Your task to perform on an android device: toggle priority inbox in the gmail app Image 0: 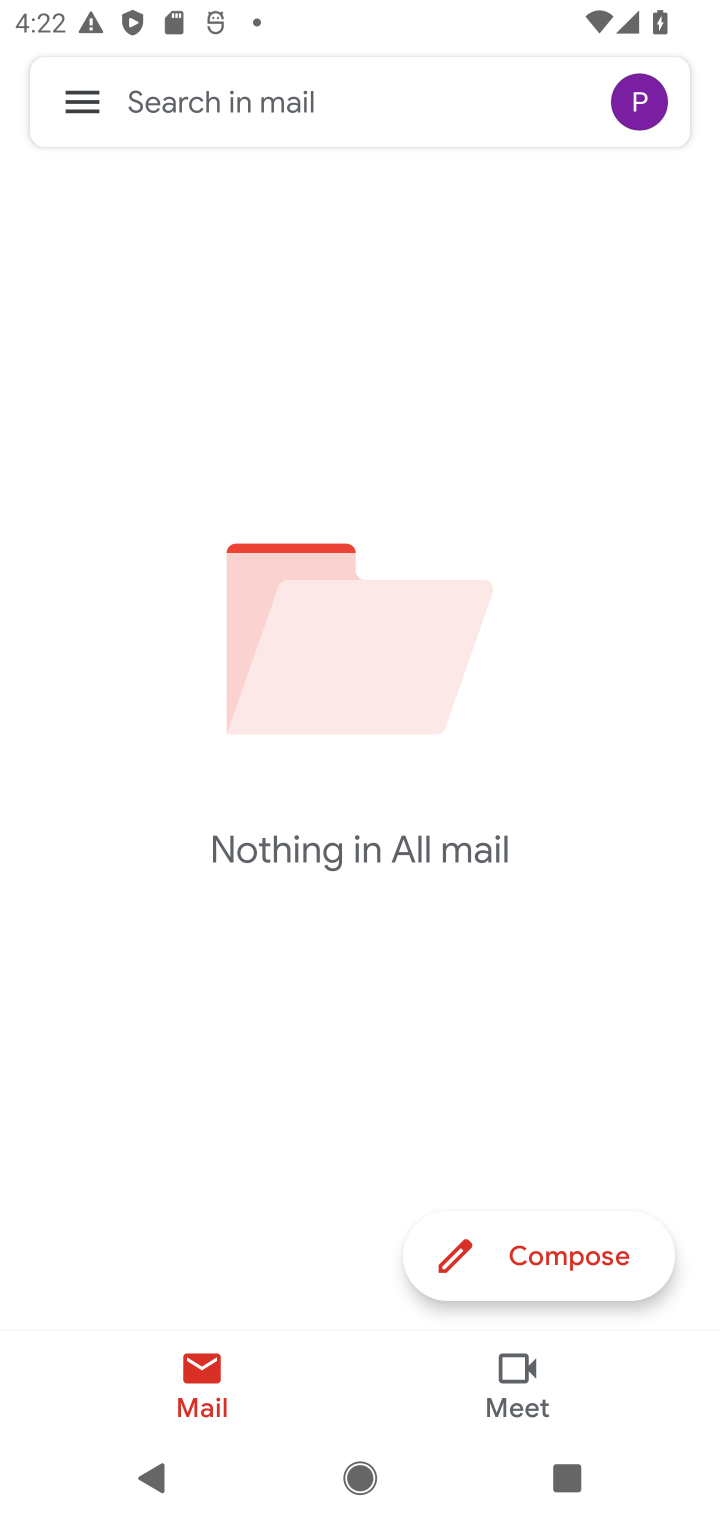
Step 0: press home button
Your task to perform on an android device: toggle priority inbox in the gmail app Image 1: 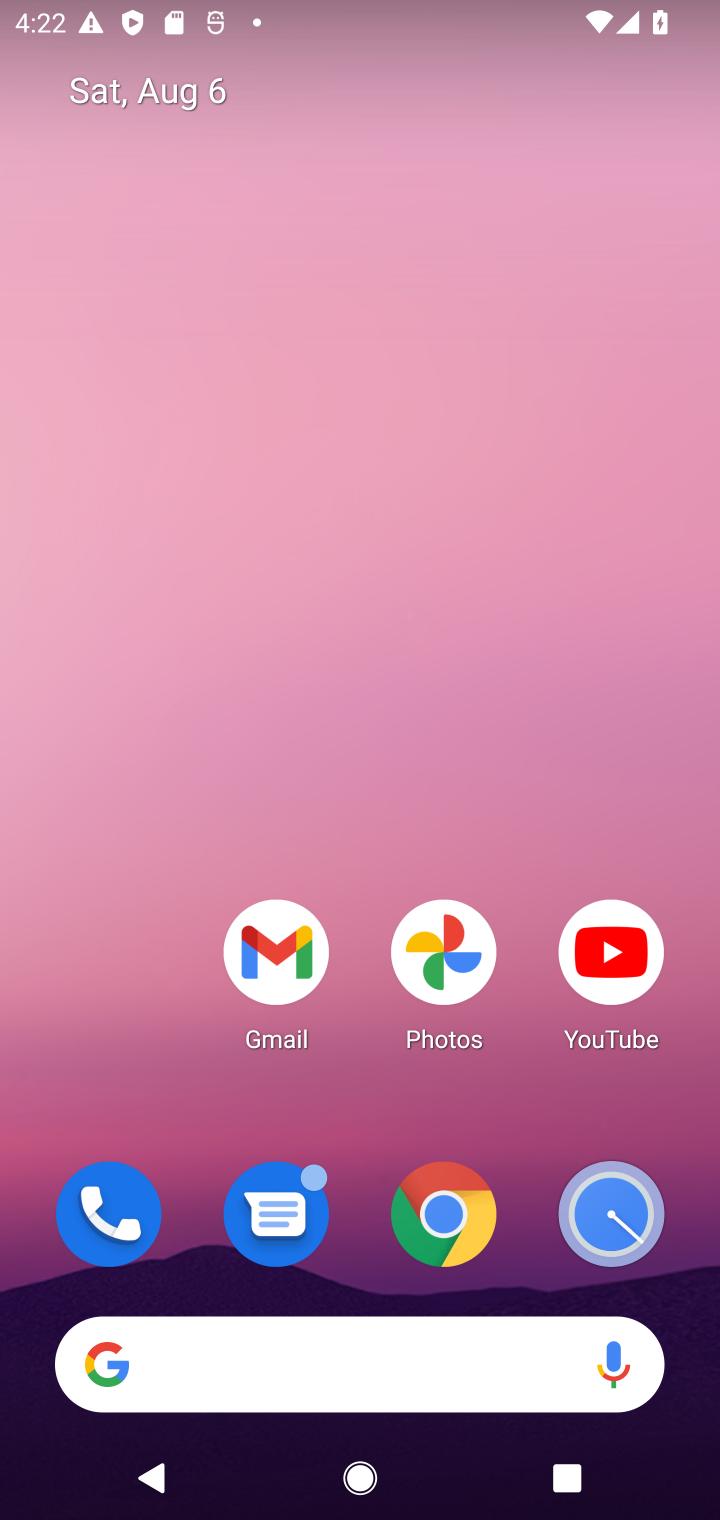
Step 1: drag from (351, 879) to (363, 489)
Your task to perform on an android device: toggle priority inbox in the gmail app Image 2: 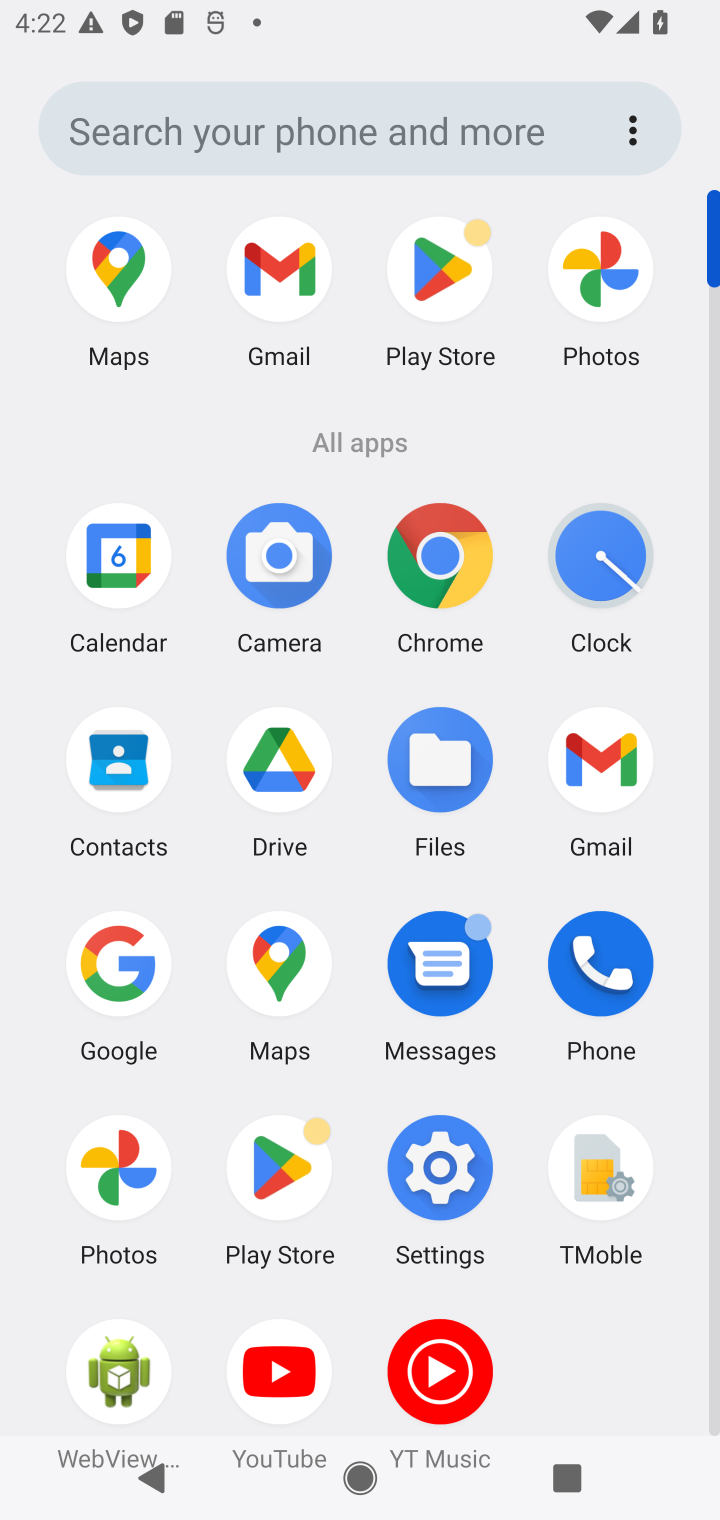
Step 2: click (270, 294)
Your task to perform on an android device: toggle priority inbox in the gmail app Image 3: 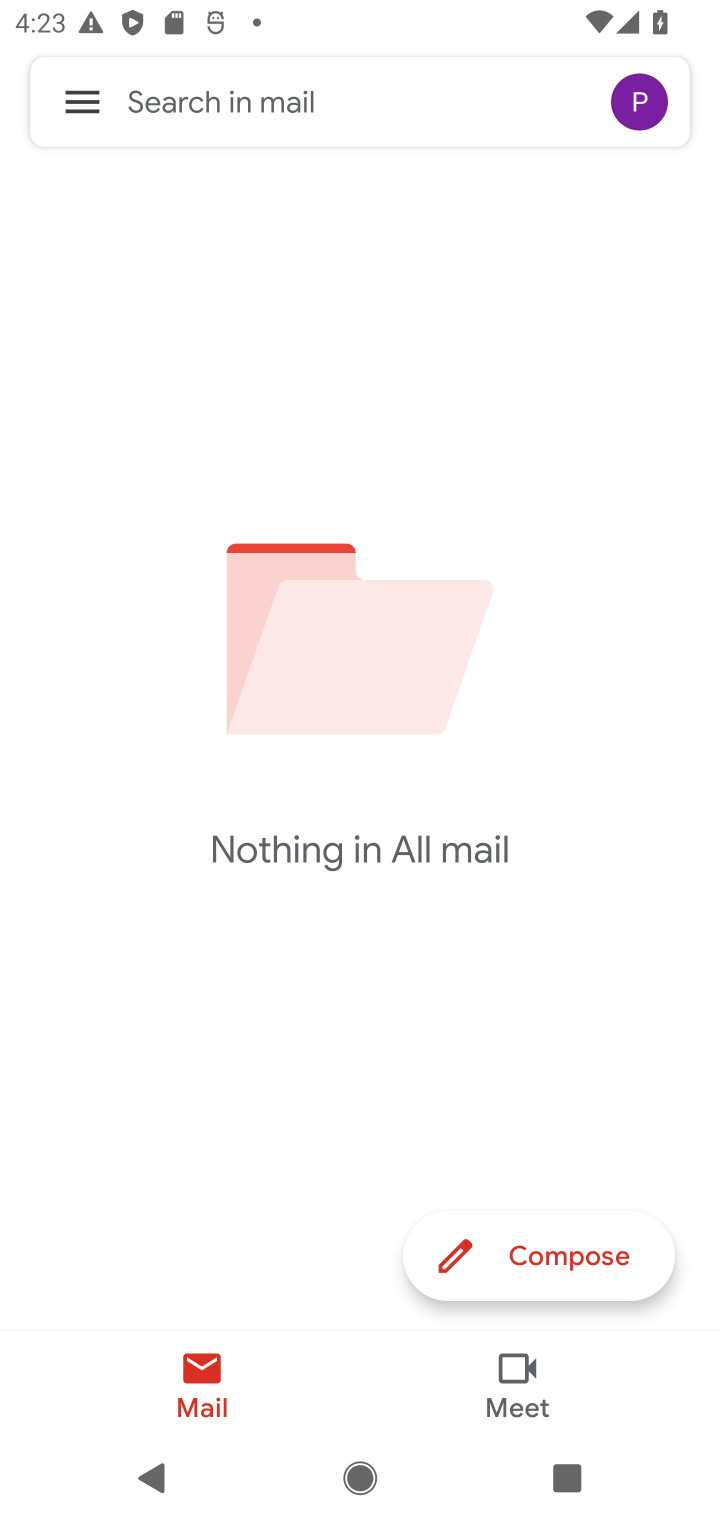
Step 3: click (84, 114)
Your task to perform on an android device: toggle priority inbox in the gmail app Image 4: 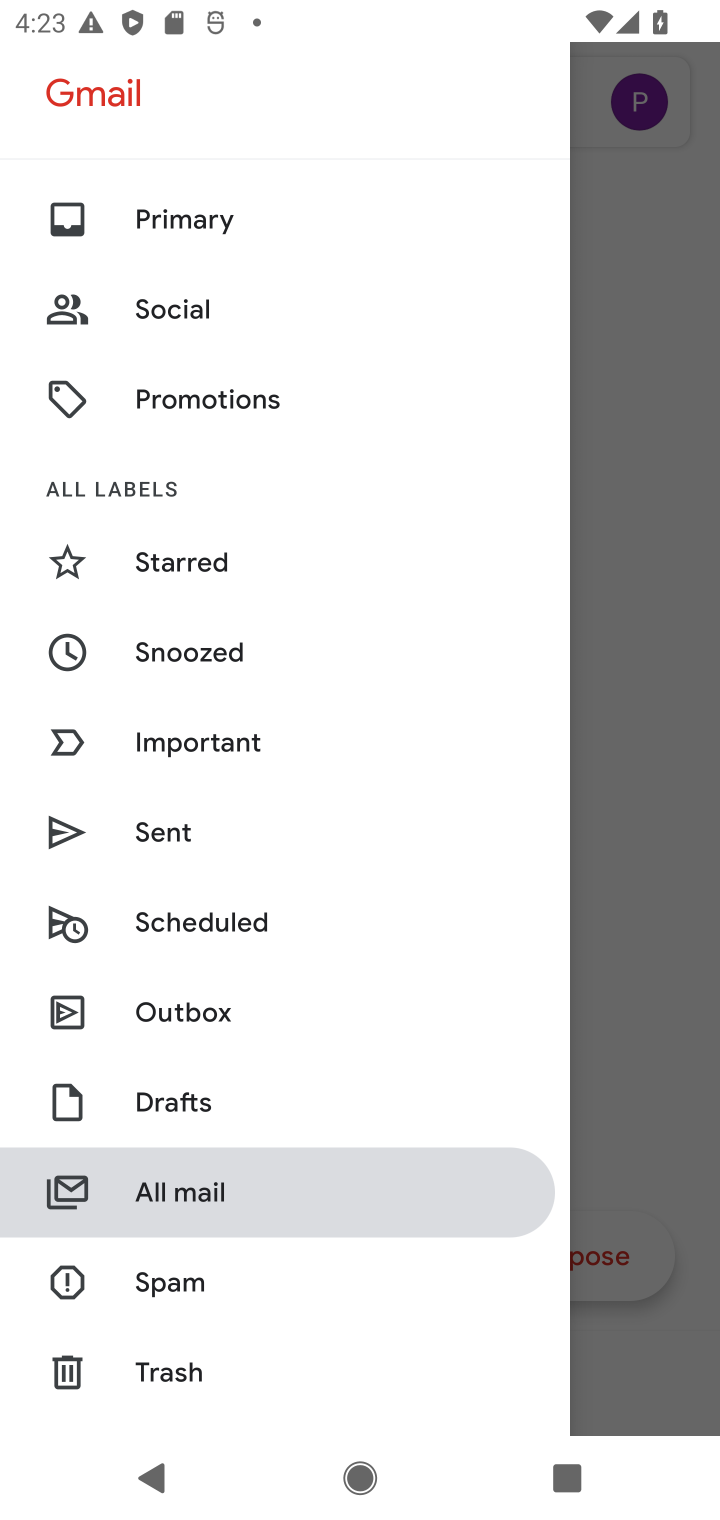
Step 4: drag from (268, 994) to (268, 682)
Your task to perform on an android device: toggle priority inbox in the gmail app Image 5: 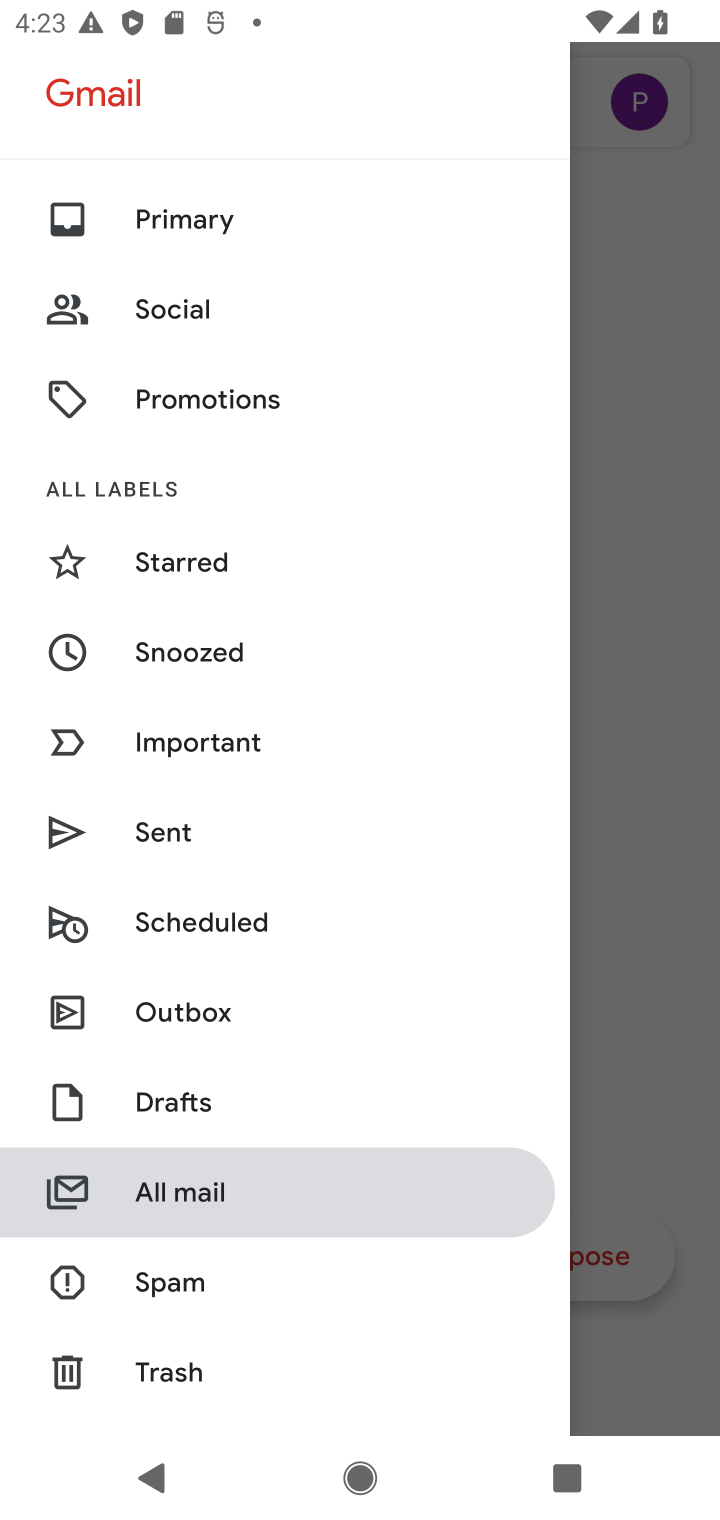
Step 5: drag from (230, 1349) to (215, 631)
Your task to perform on an android device: toggle priority inbox in the gmail app Image 6: 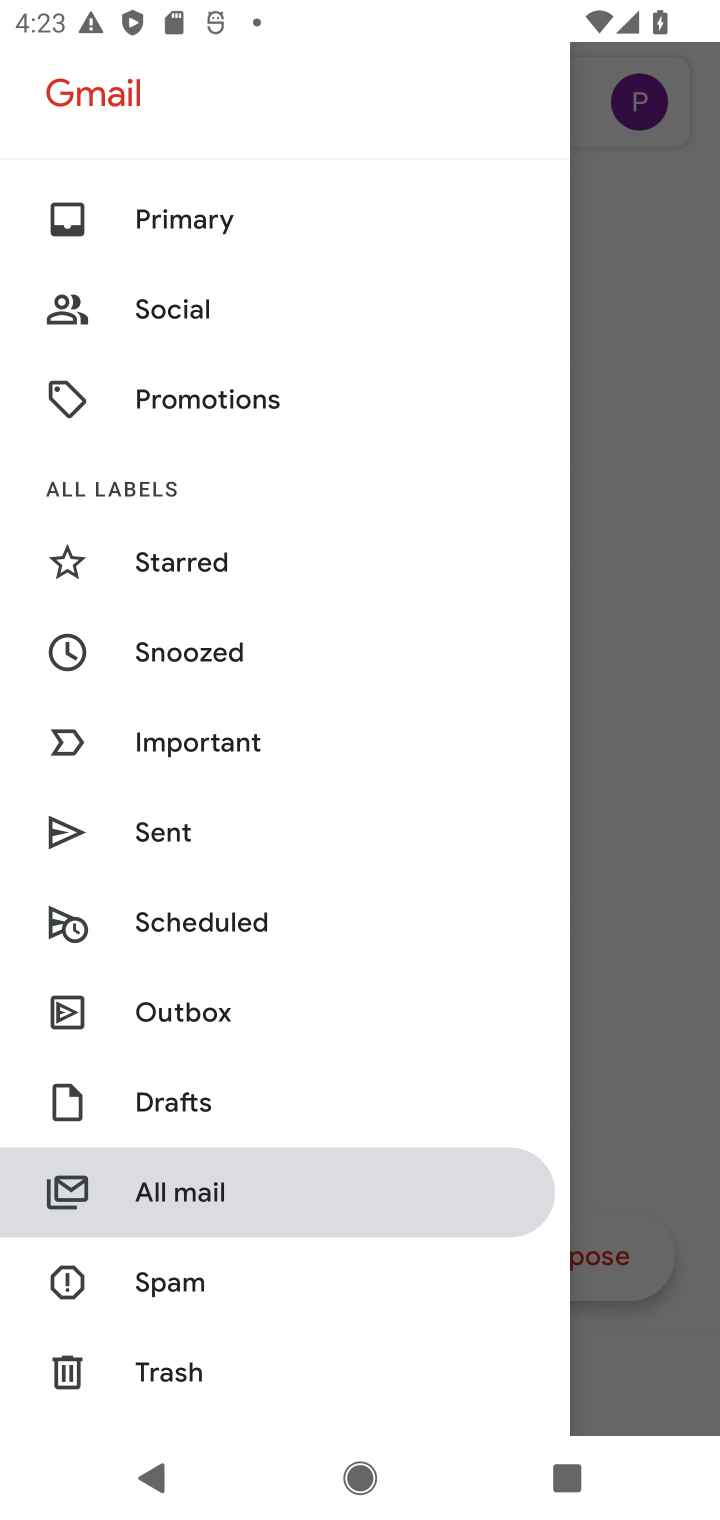
Step 6: drag from (200, 988) to (207, 564)
Your task to perform on an android device: toggle priority inbox in the gmail app Image 7: 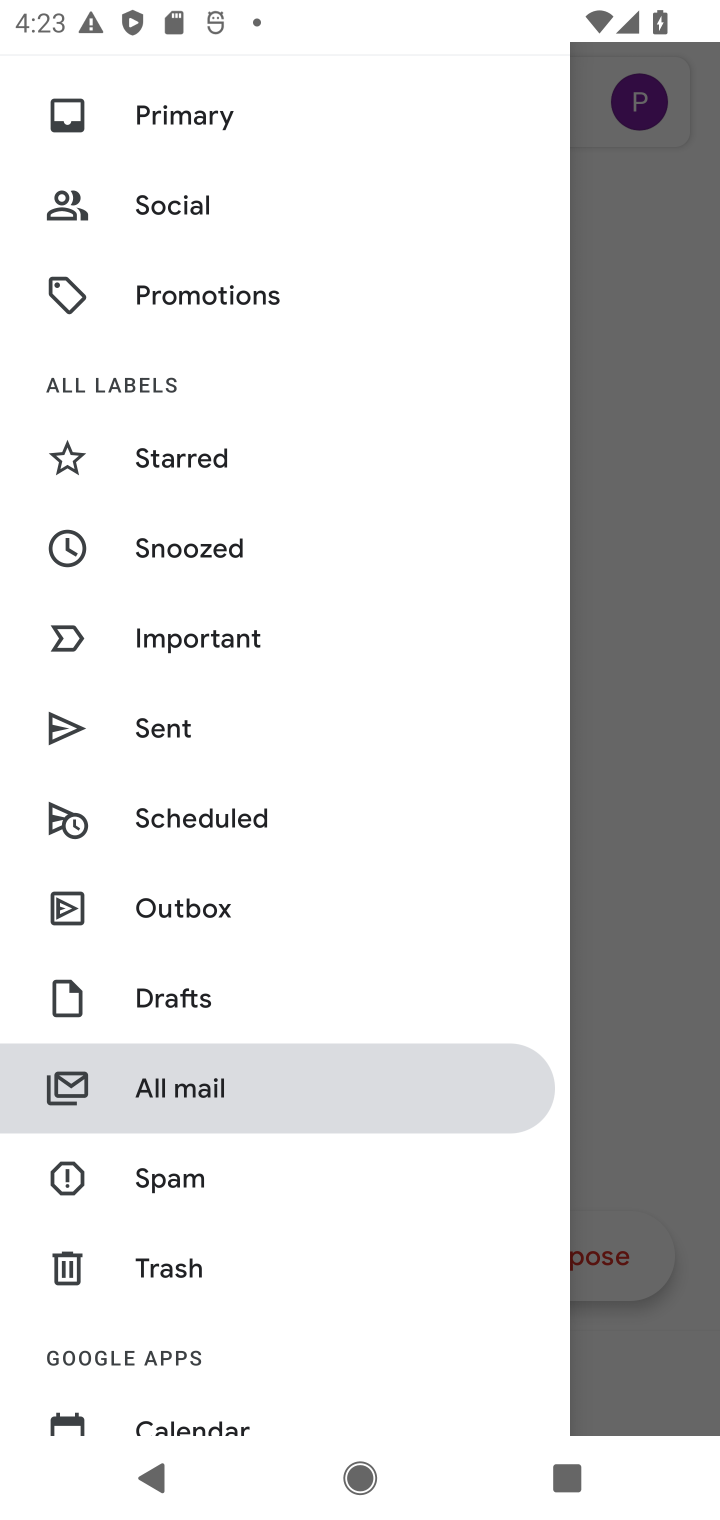
Step 7: drag from (211, 1371) to (209, 726)
Your task to perform on an android device: toggle priority inbox in the gmail app Image 8: 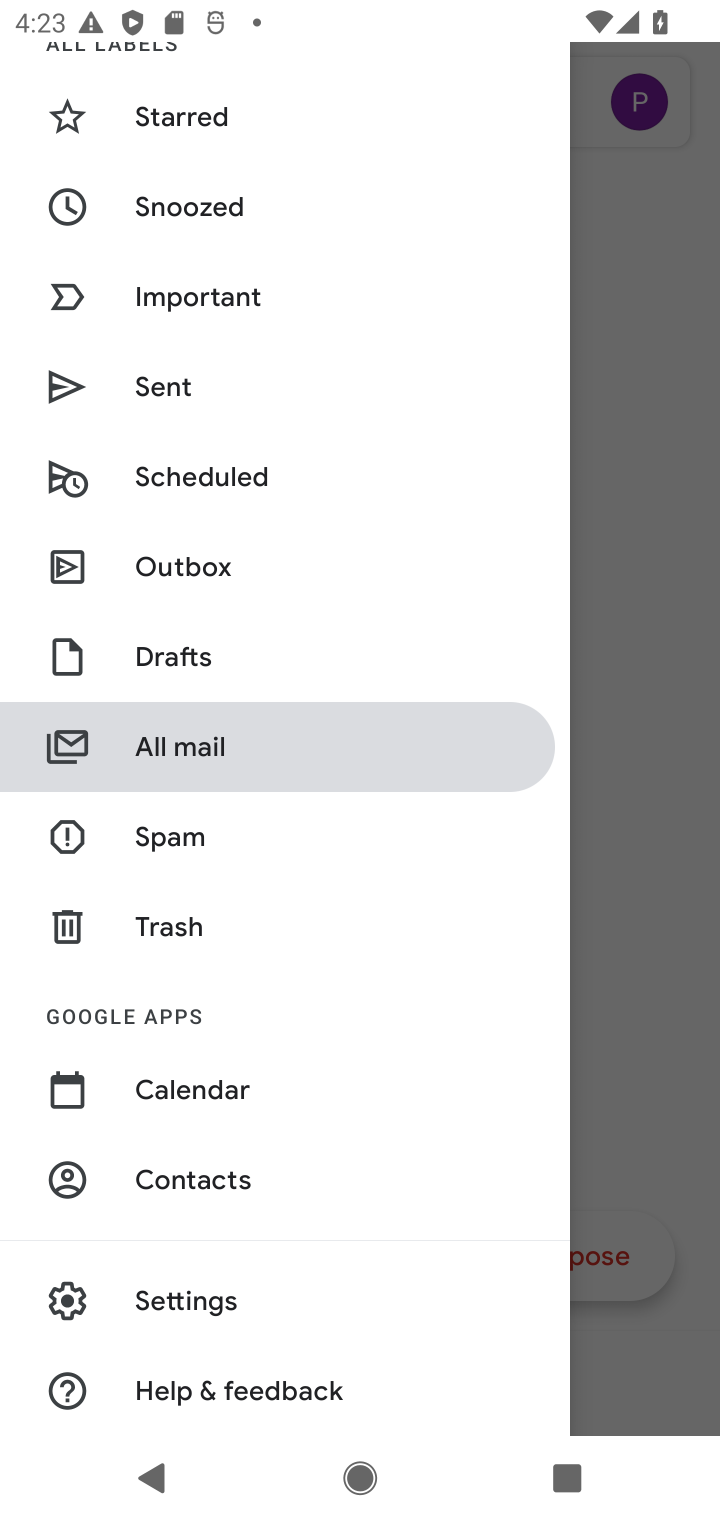
Step 8: click (202, 1295)
Your task to perform on an android device: toggle priority inbox in the gmail app Image 9: 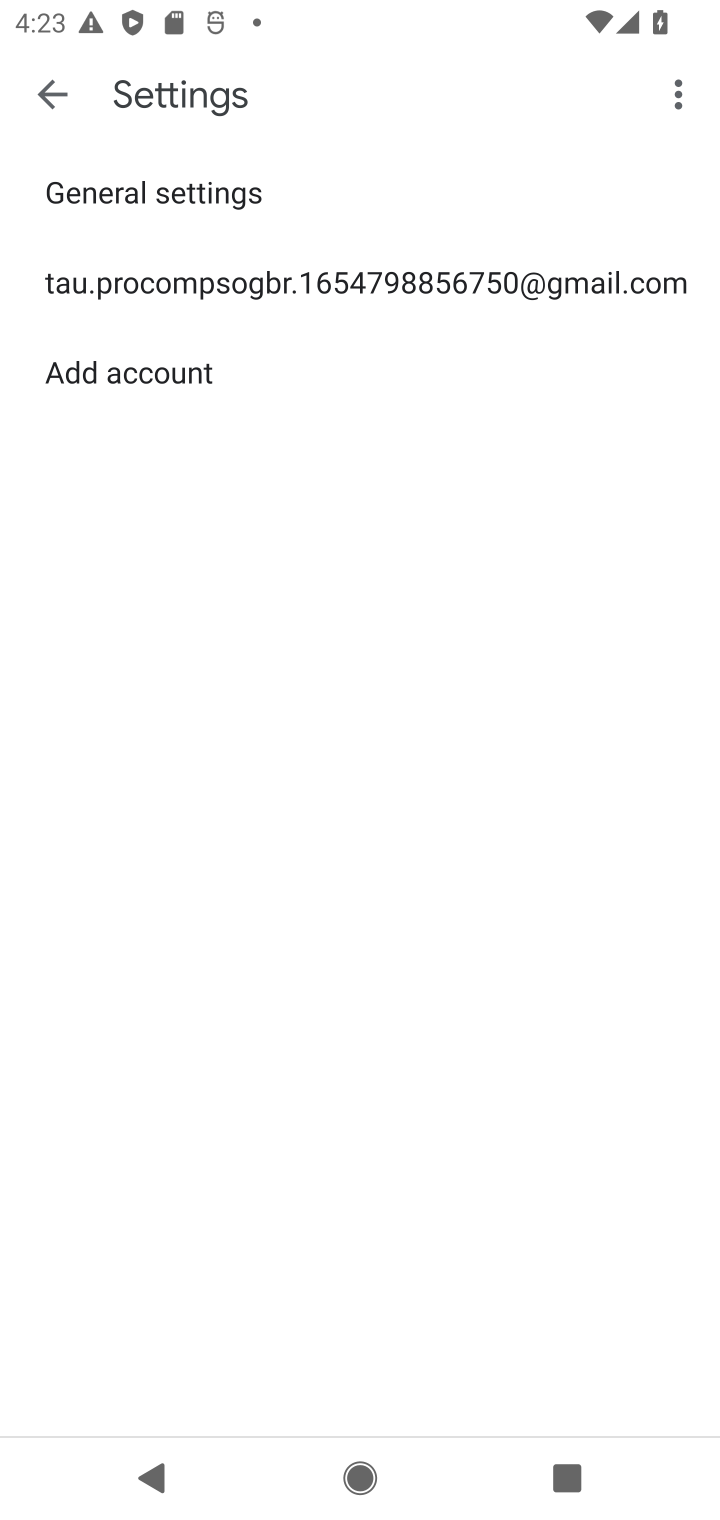
Step 9: click (179, 280)
Your task to perform on an android device: toggle priority inbox in the gmail app Image 10: 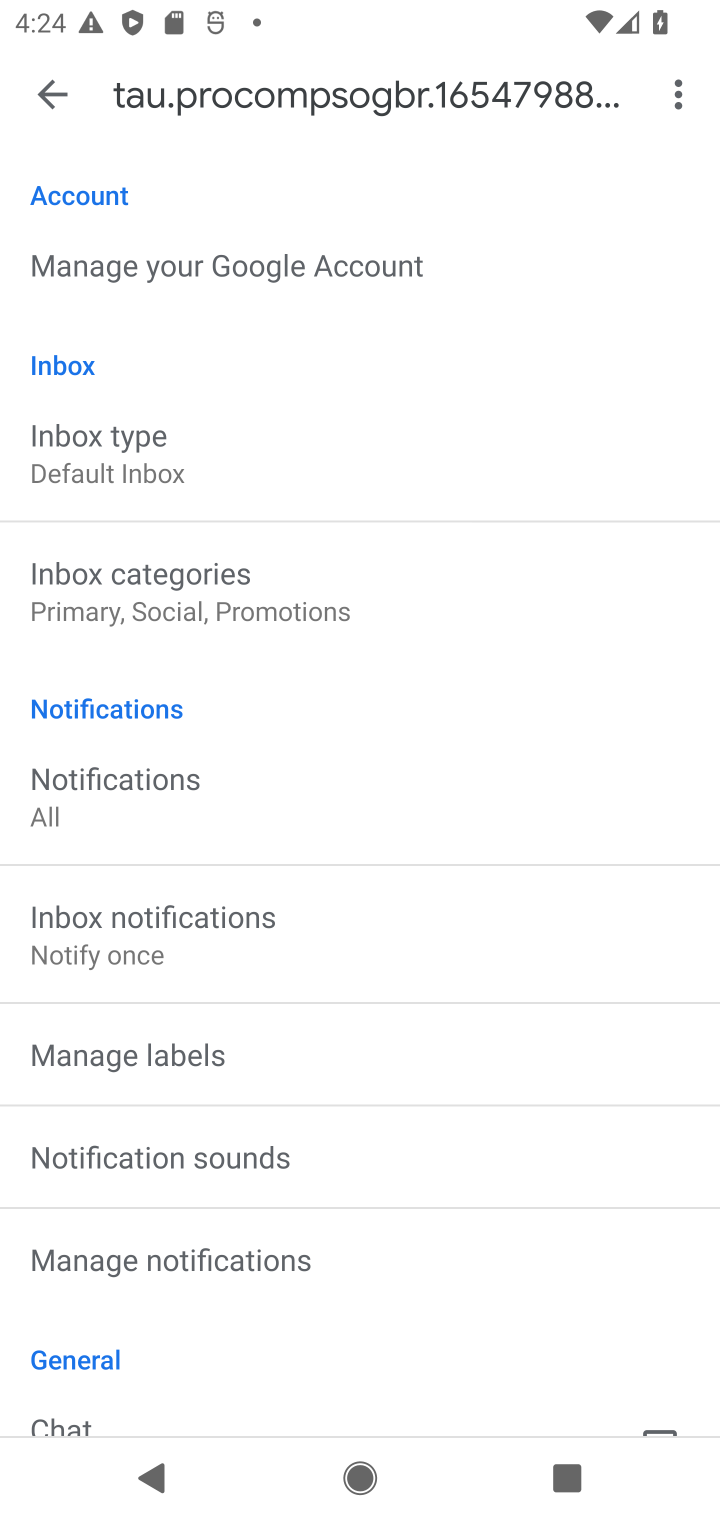
Step 10: click (139, 449)
Your task to perform on an android device: toggle priority inbox in the gmail app Image 11: 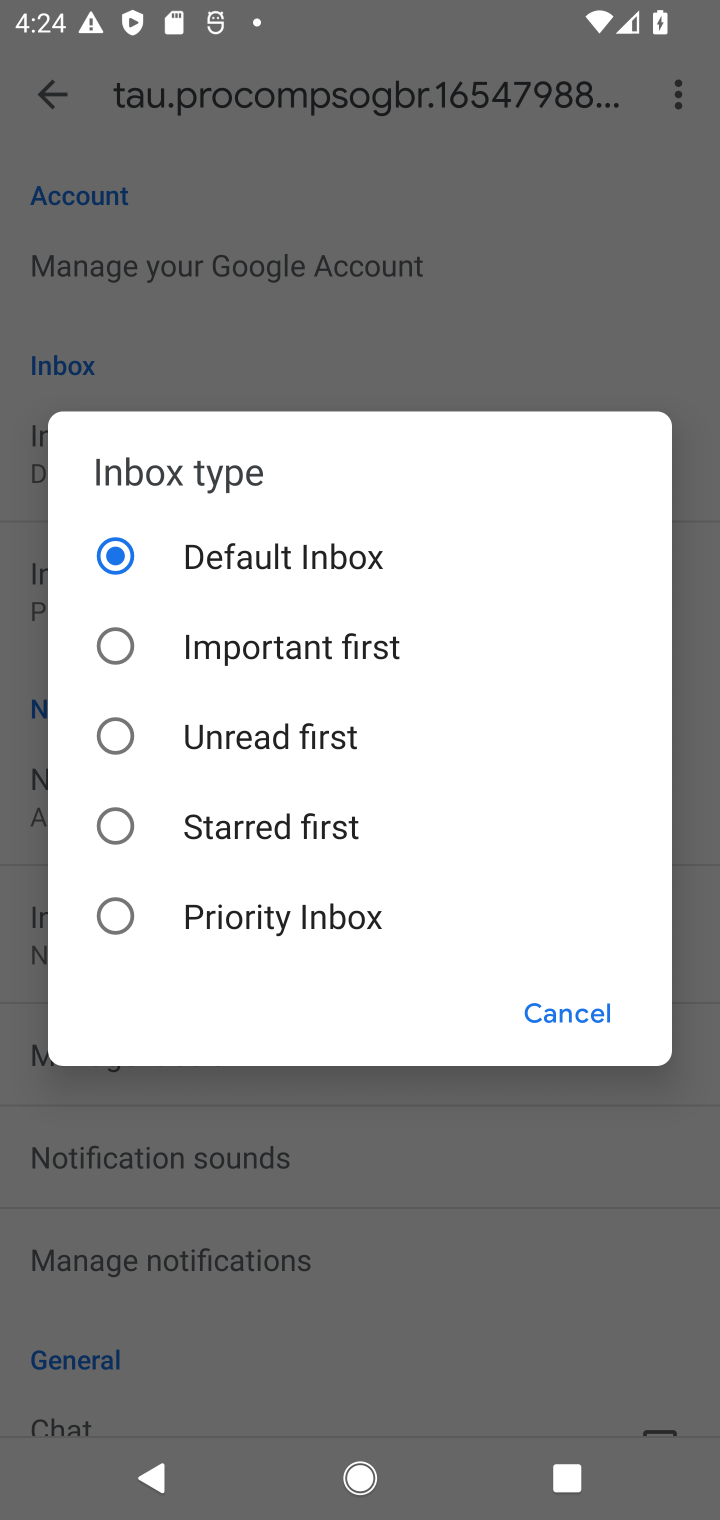
Step 11: click (123, 920)
Your task to perform on an android device: toggle priority inbox in the gmail app Image 12: 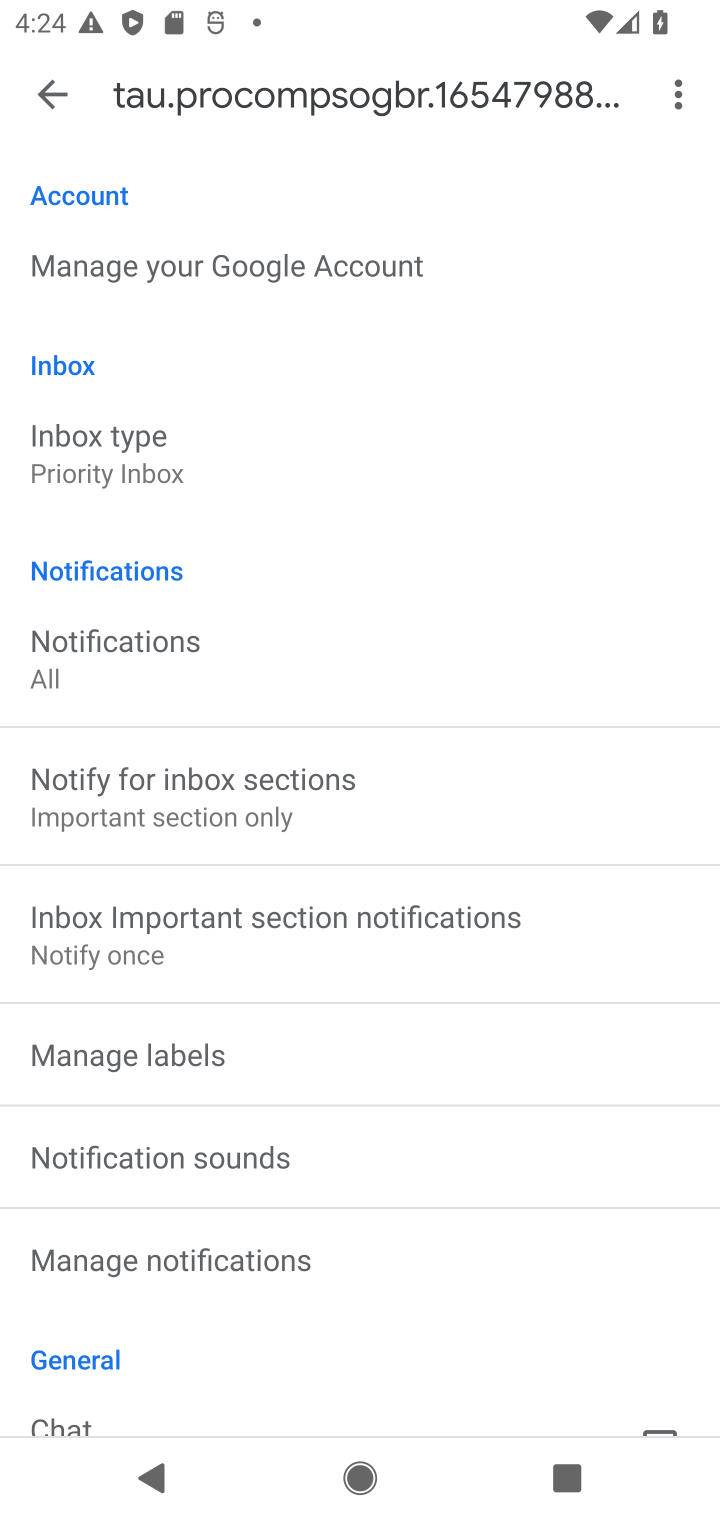
Step 12: task complete